Your task to perform on an android device: set the stopwatch Image 0: 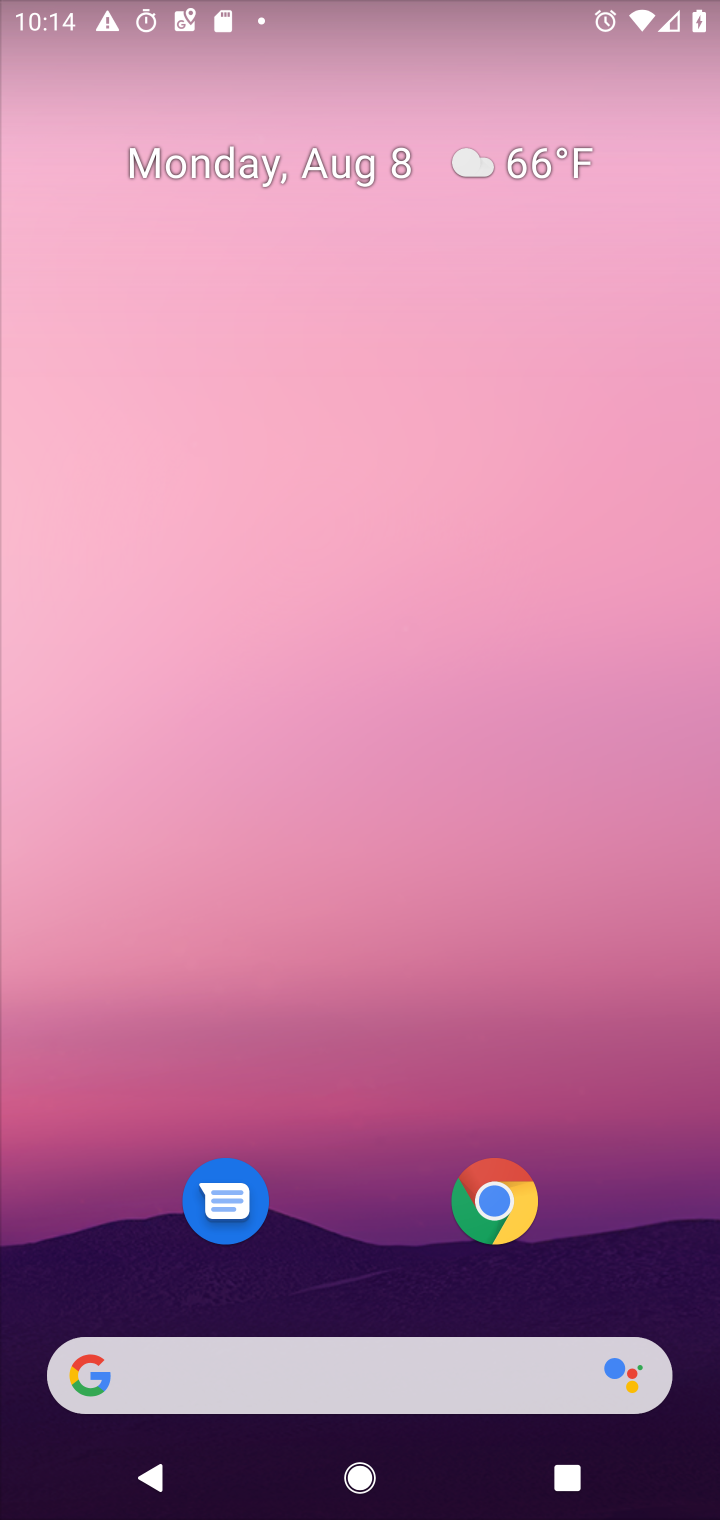
Step 0: press home button
Your task to perform on an android device: set the stopwatch Image 1: 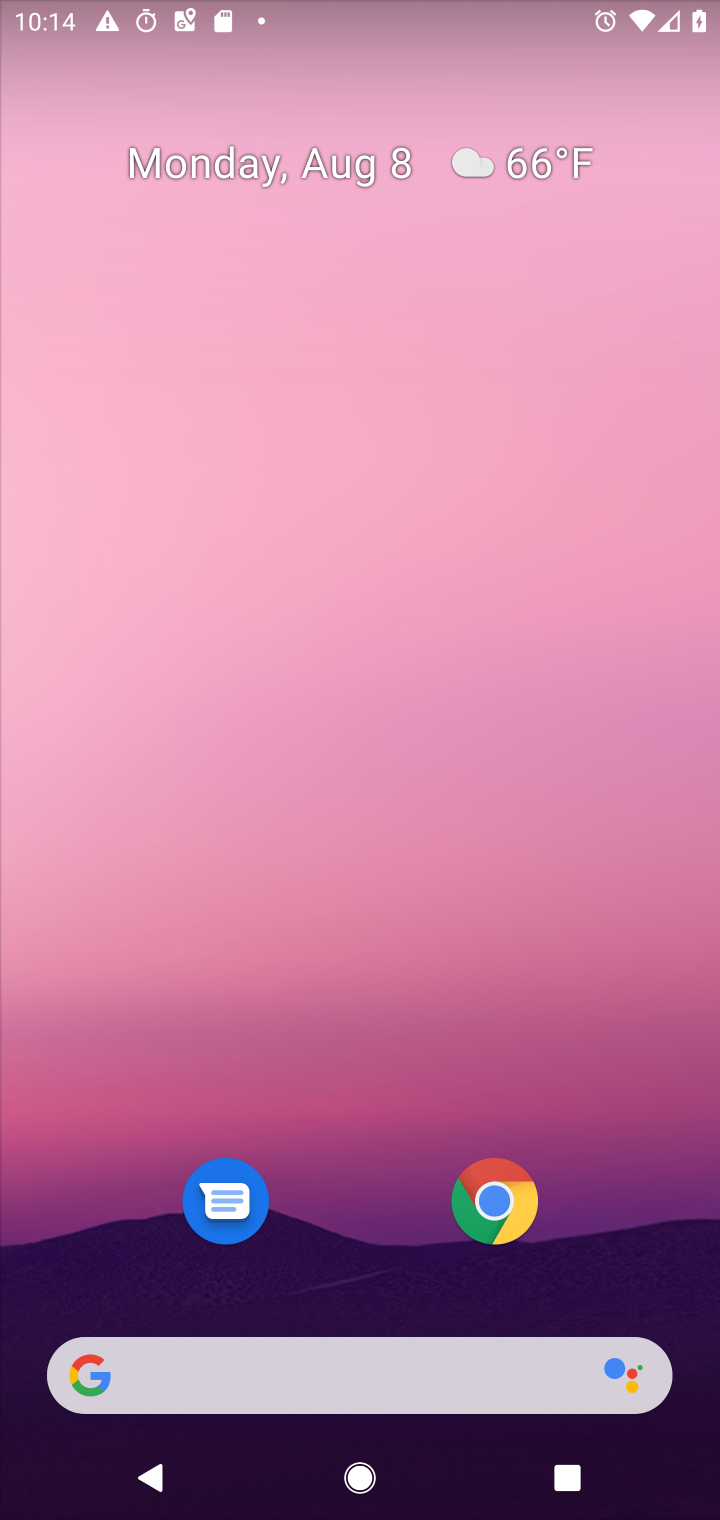
Step 1: drag from (649, 1210) to (702, 405)
Your task to perform on an android device: set the stopwatch Image 2: 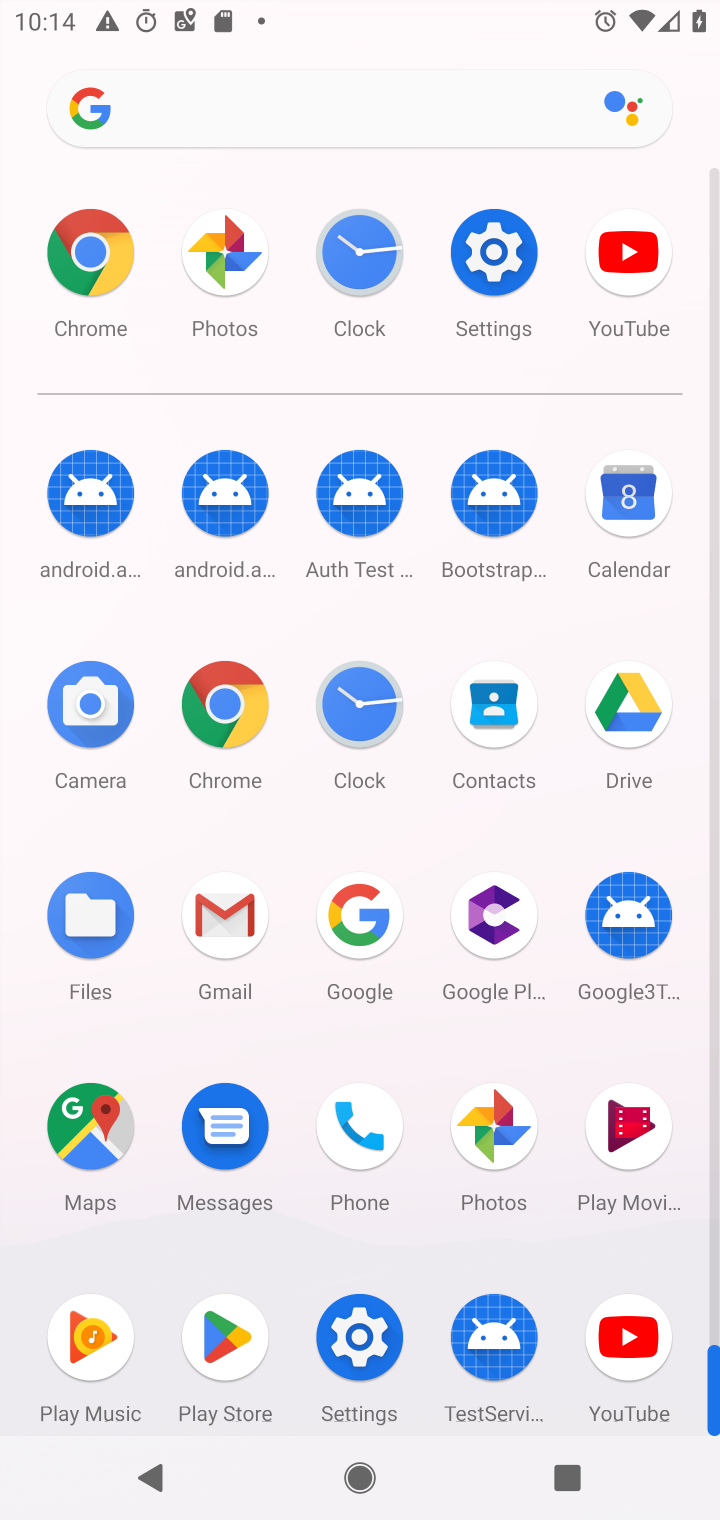
Step 2: click (351, 723)
Your task to perform on an android device: set the stopwatch Image 3: 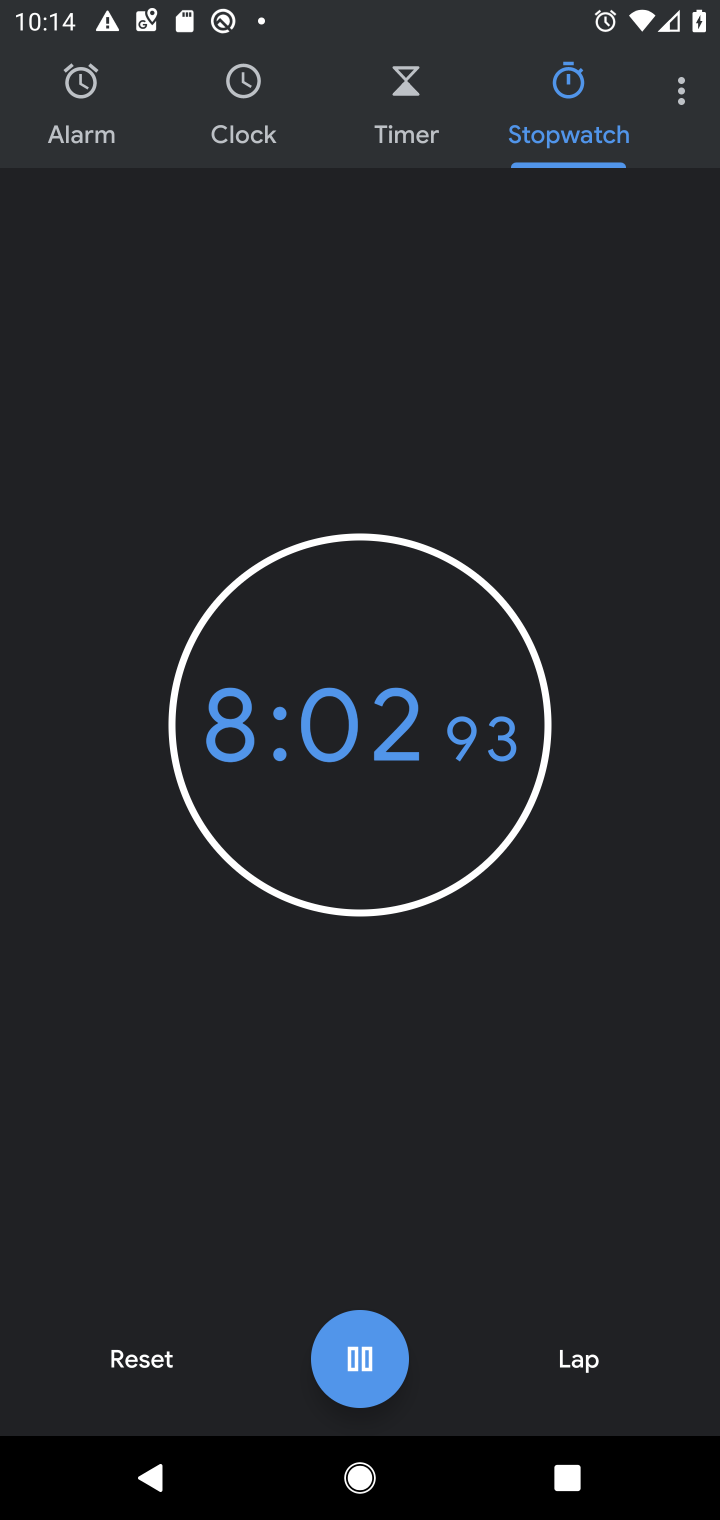
Step 3: task complete